Your task to perform on an android device: see sites visited before in the chrome app Image 0: 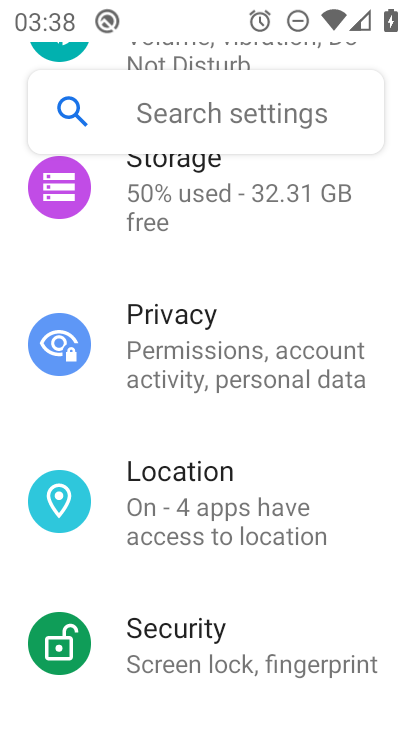
Step 0: press home button
Your task to perform on an android device: see sites visited before in the chrome app Image 1: 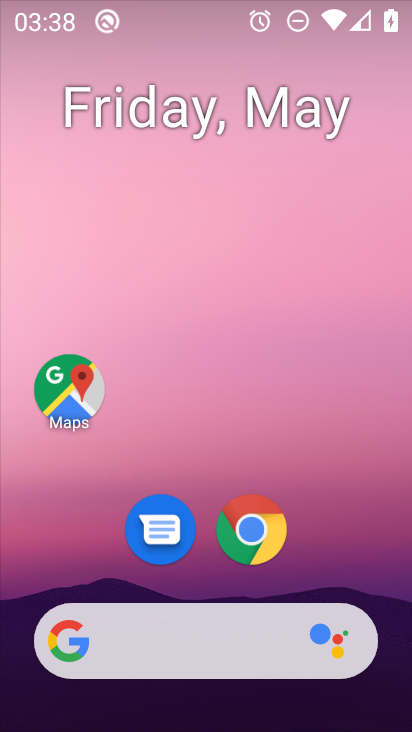
Step 1: click (248, 522)
Your task to perform on an android device: see sites visited before in the chrome app Image 2: 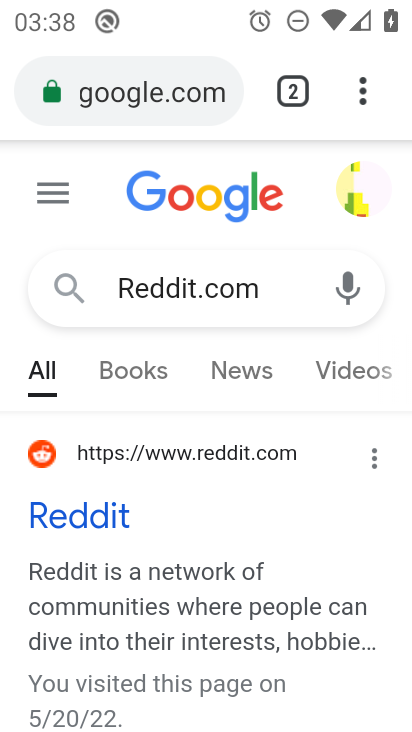
Step 2: click (356, 88)
Your task to perform on an android device: see sites visited before in the chrome app Image 3: 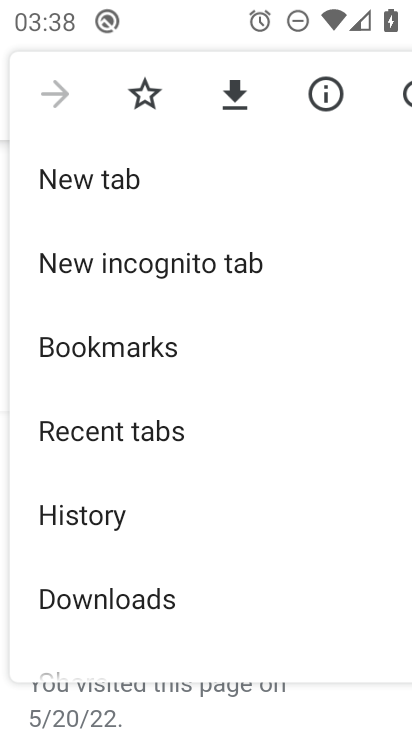
Step 3: click (85, 434)
Your task to perform on an android device: see sites visited before in the chrome app Image 4: 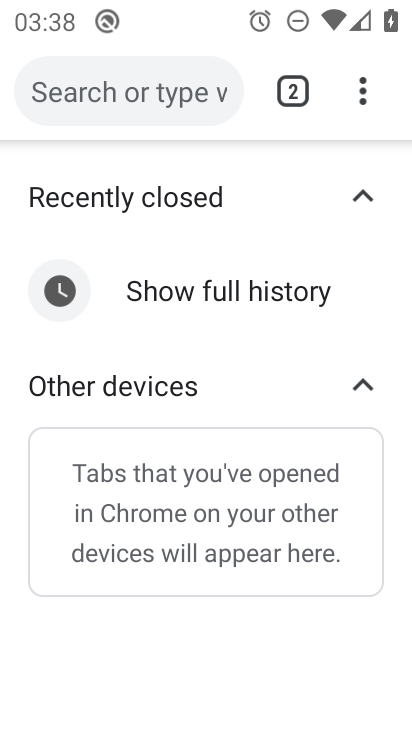
Step 4: task complete